Your task to perform on an android device: Go to Google maps Image 0: 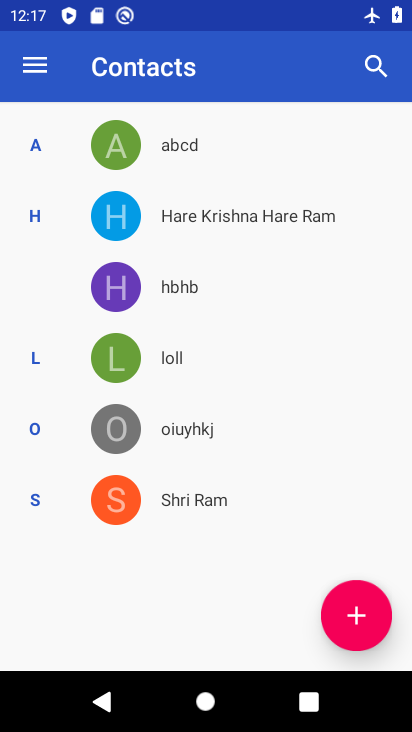
Step 0: press home button
Your task to perform on an android device: Go to Google maps Image 1: 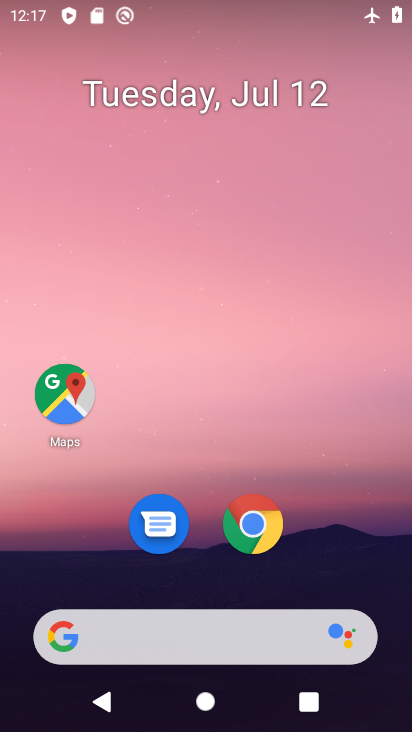
Step 1: click (60, 398)
Your task to perform on an android device: Go to Google maps Image 2: 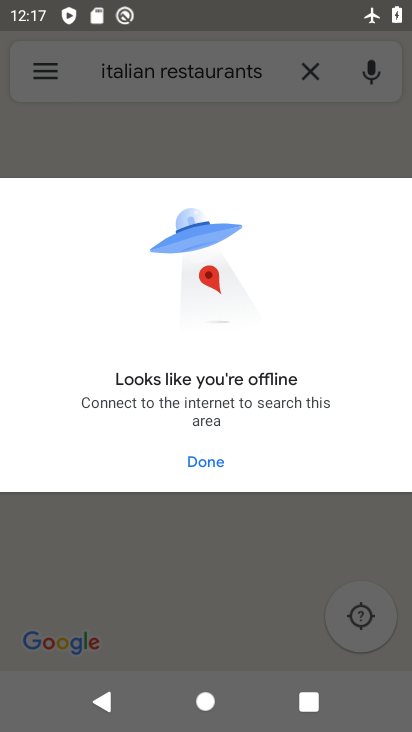
Step 2: click (207, 458)
Your task to perform on an android device: Go to Google maps Image 3: 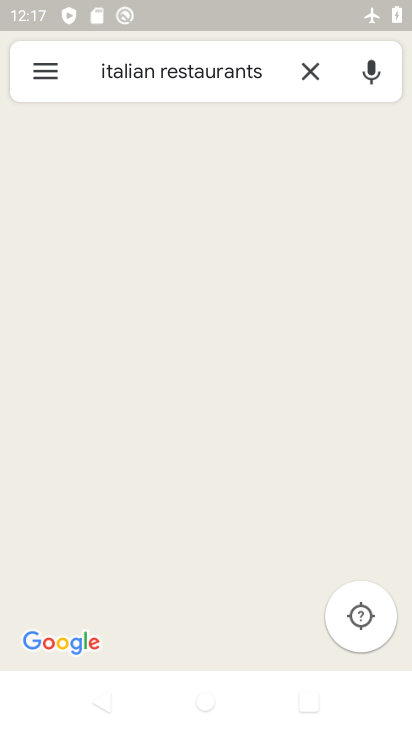
Step 3: click (308, 64)
Your task to perform on an android device: Go to Google maps Image 4: 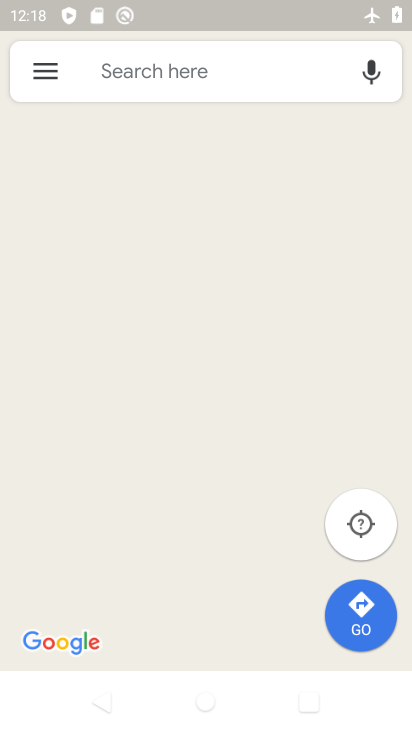
Step 4: task complete